Your task to perform on an android device: turn on sleep mode Image 0: 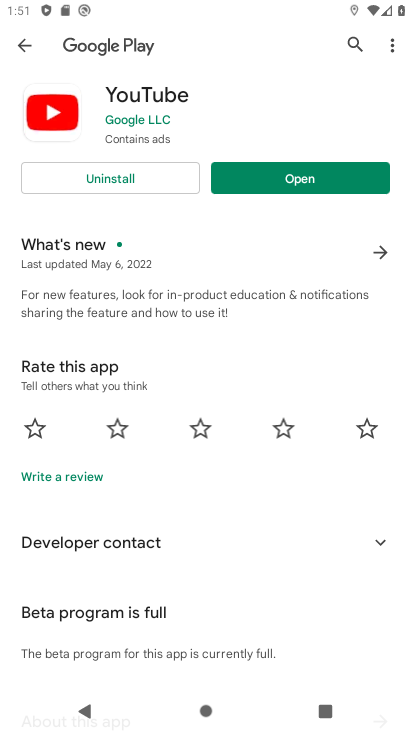
Step 0: press home button
Your task to perform on an android device: turn on sleep mode Image 1: 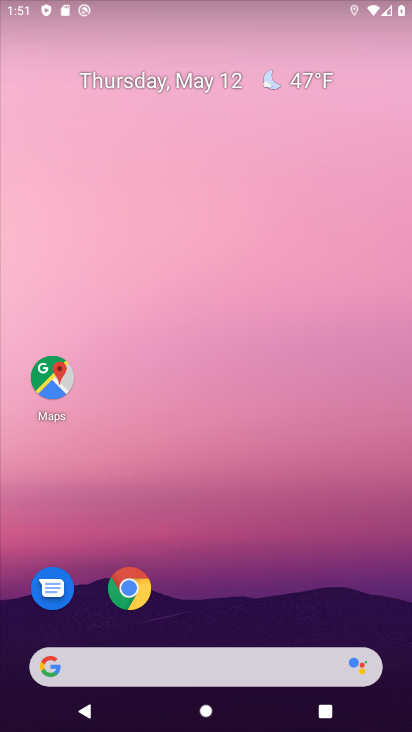
Step 1: drag from (388, 664) to (302, 83)
Your task to perform on an android device: turn on sleep mode Image 2: 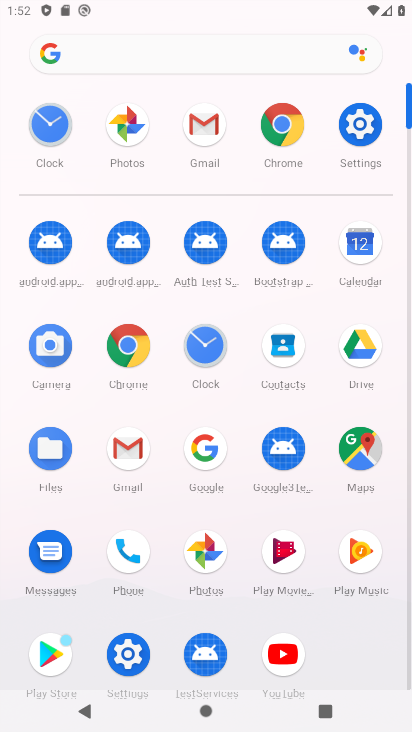
Step 2: click (114, 659)
Your task to perform on an android device: turn on sleep mode Image 3: 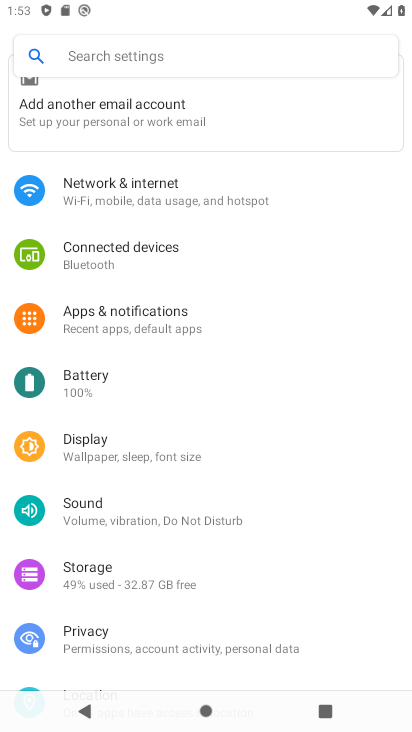
Step 3: task complete